Your task to perform on an android device: Open Amazon Image 0: 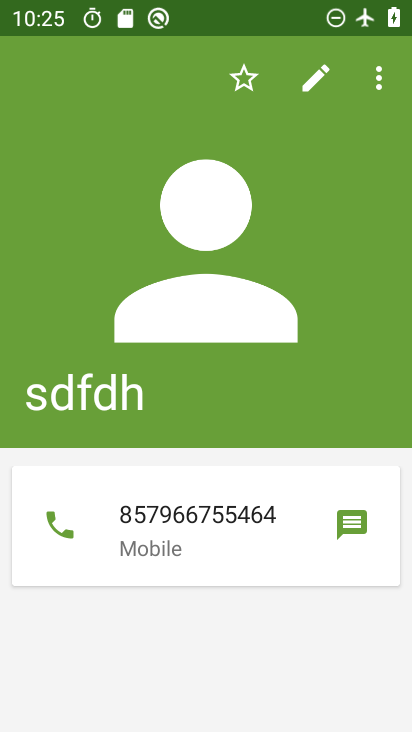
Step 0: press home button
Your task to perform on an android device: Open Amazon Image 1: 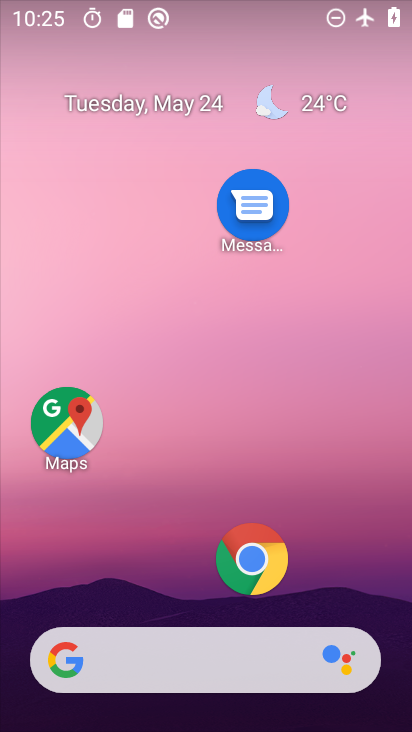
Step 1: click (236, 567)
Your task to perform on an android device: Open Amazon Image 2: 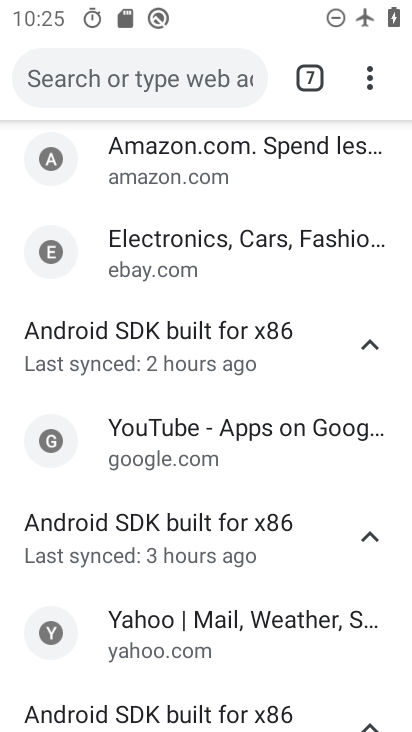
Step 2: click (301, 93)
Your task to perform on an android device: Open Amazon Image 3: 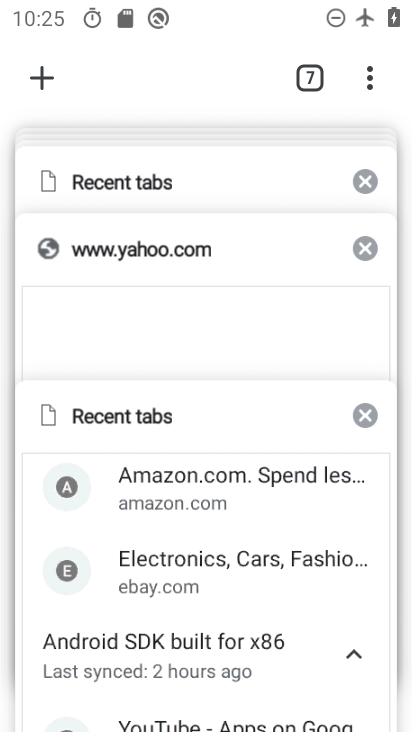
Step 3: drag from (209, 255) to (209, 545)
Your task to perform on an android device: Open Amazon Image 4: 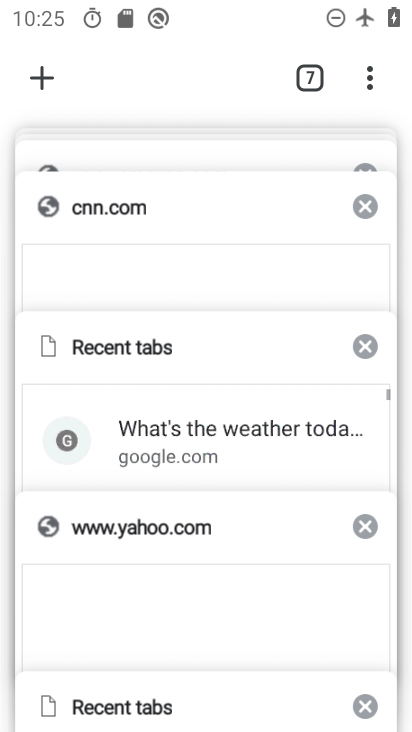
Step 4: drag from (190, 266) to (190, 530)
Your task to perform on an android device: Open Amazon Image 5: 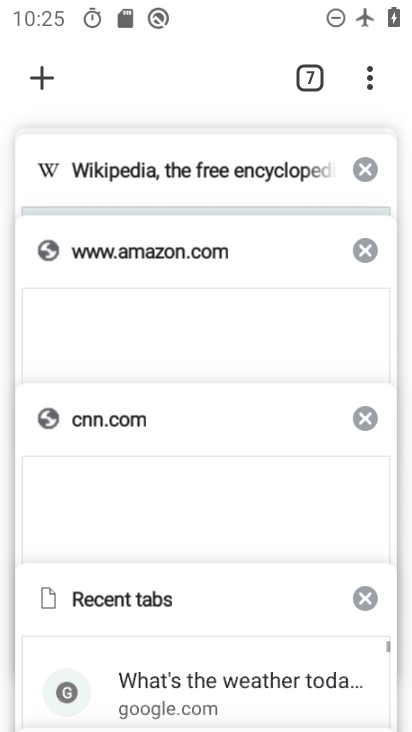
Step 5: click (175, 293)
Your task to perform on an android device: Open Amazon Image 6: 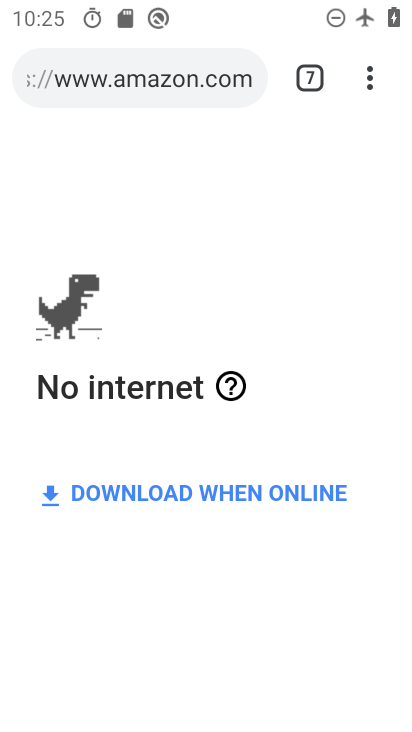
Step 6: task complete